Your task to perform on an android device: see tabs open on other devices in the chrome app Image 0: 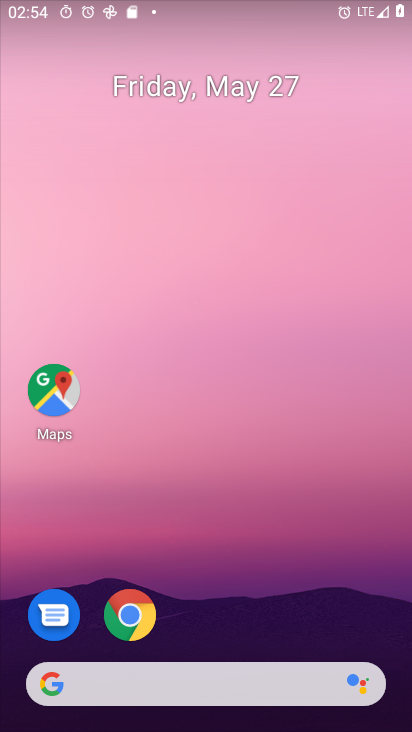
Step 0: drag from (352, 637) to (351, 103)
Your task to perform on an android device: see tabs open on other devices in the chrome app Image 1: 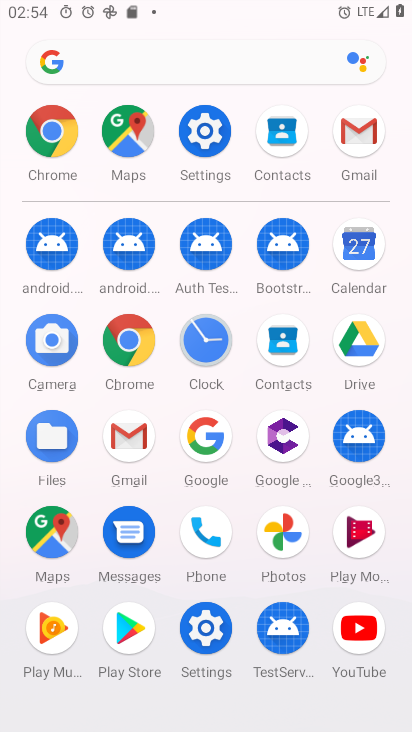
Step 1: click (139, 352)
Your task to perform on an android device: see tabs open on other devices in the chrome app Image 2: 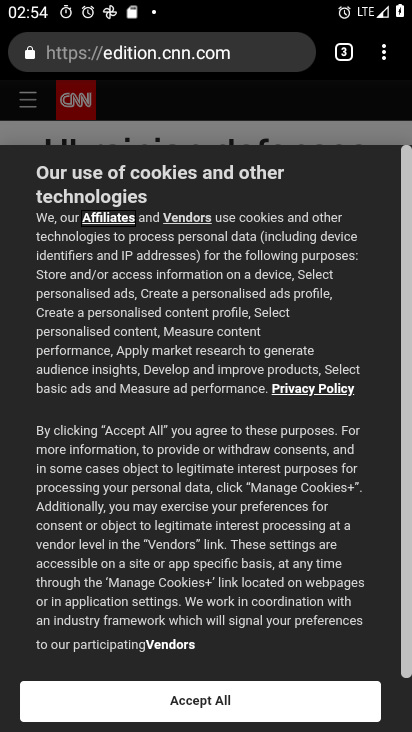
Step 2: click (388, 62)
Your task to perform on an android device: see tabs open on other devices in the chrome app Image 3: 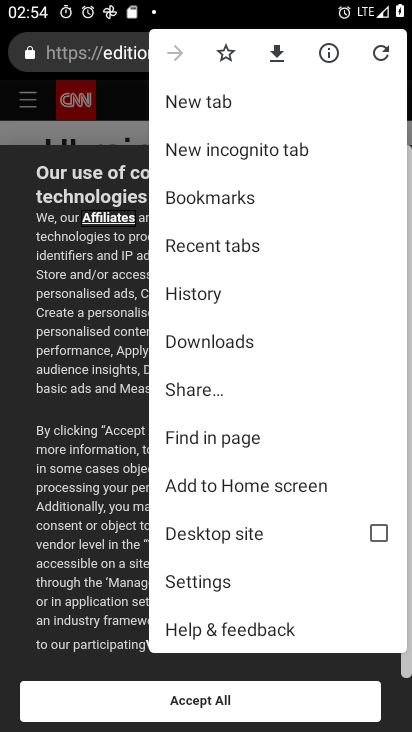
Step 3: click (257, 248)
Your task to perform on an android device: see tabs open on other devices in the chrome app Image 4: 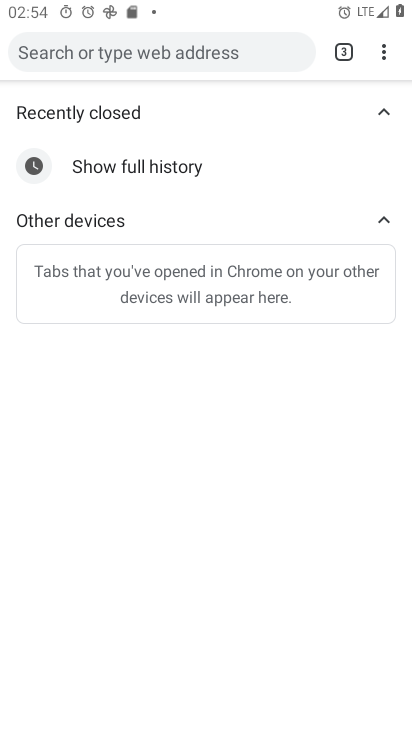
Step 4: click (383, 58)
Your task to perform on an android device: see tabs open on other devices in the chrome app Image 5: 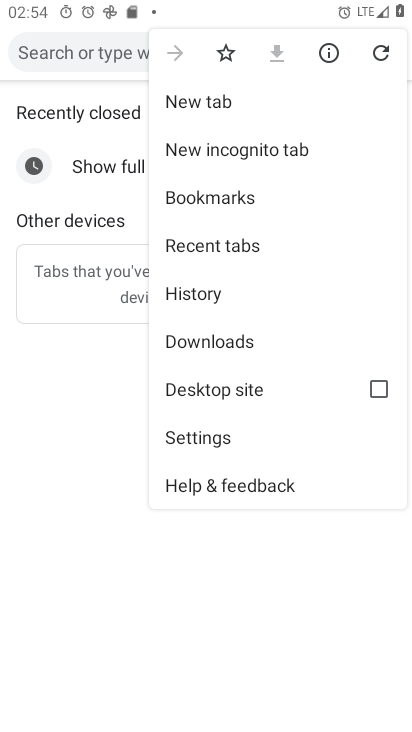
Step 5: click (245, 239)
Your task to perform on an android device: see tabs open on other devices in the chrome app Image 6: 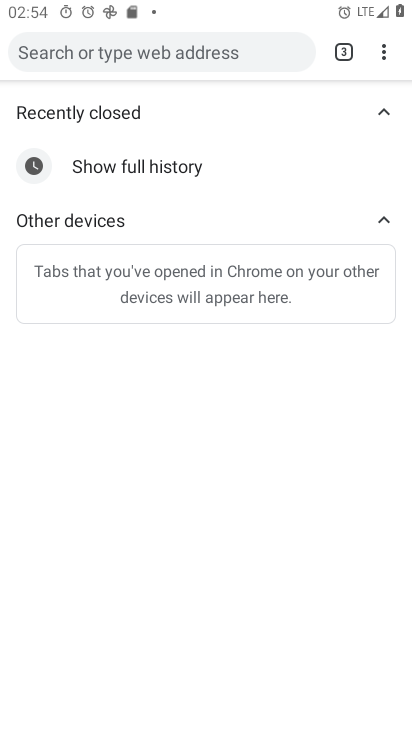
Step 6: click (348, 56)
Your task to perform on an android device: see tabs open on other devices in the chrome app Image 7: 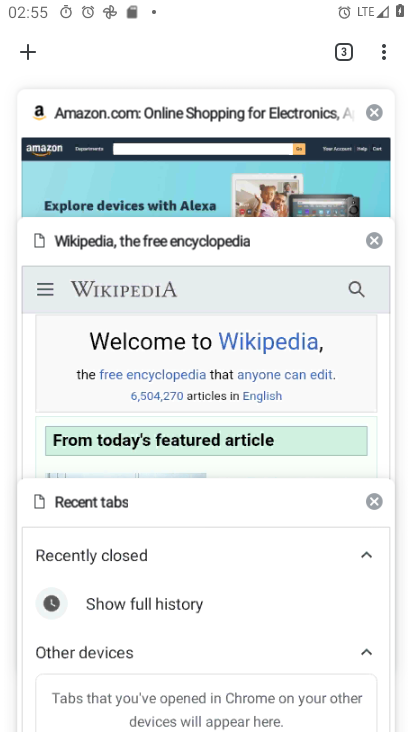
Step 7: task complete